Your task to perform on an android device: Search for flights from Tokyo to Seoul Image 0: 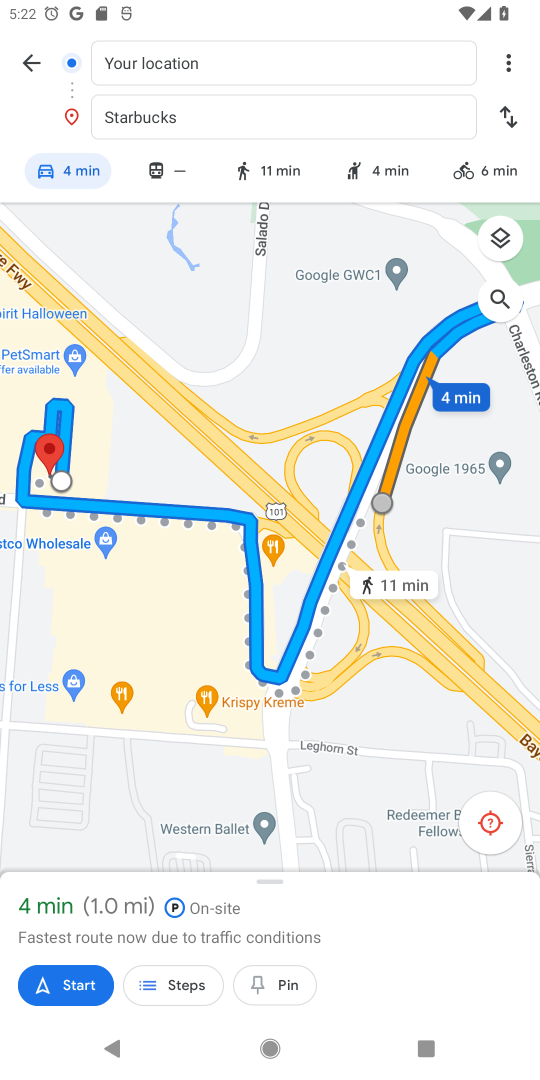
Step 0: press home button
Your task to perform on an android device: Search for flights from Tokyo to Seoul Image 1: 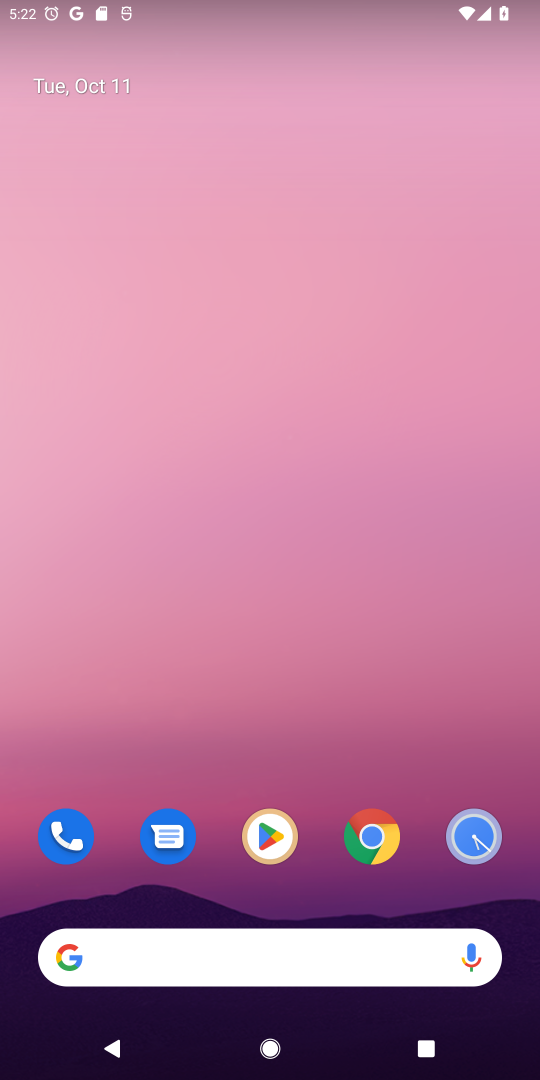
Step 1: click (333, 977)
Your task to perform on an android device: Search for flights from Tokyo to Seoul Image 2: 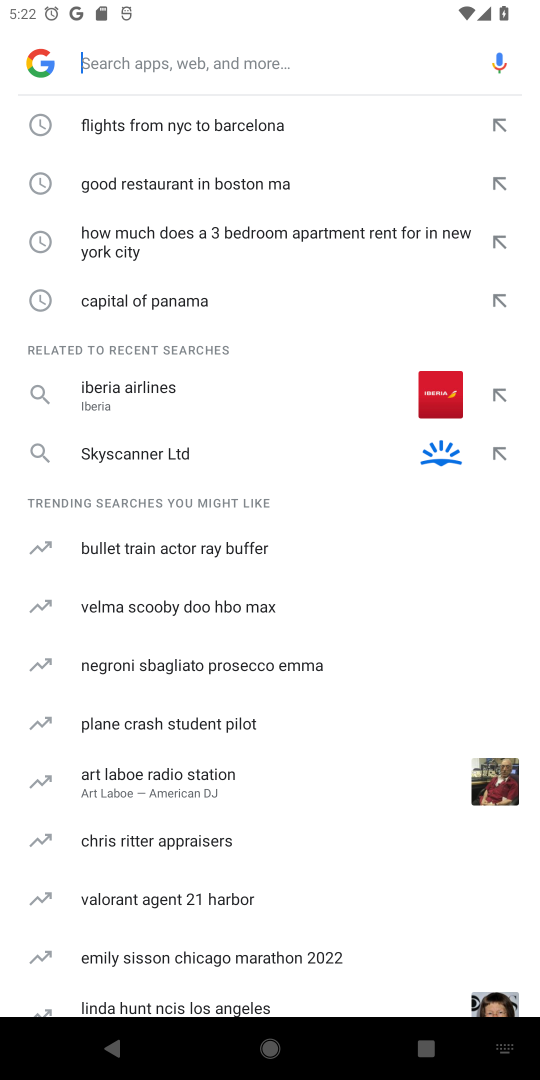
Step 2: type "flights from Tokyo to Seoul"
Your task to perform on an android device: Search for flights from Tokyo to Seoul Image 3: 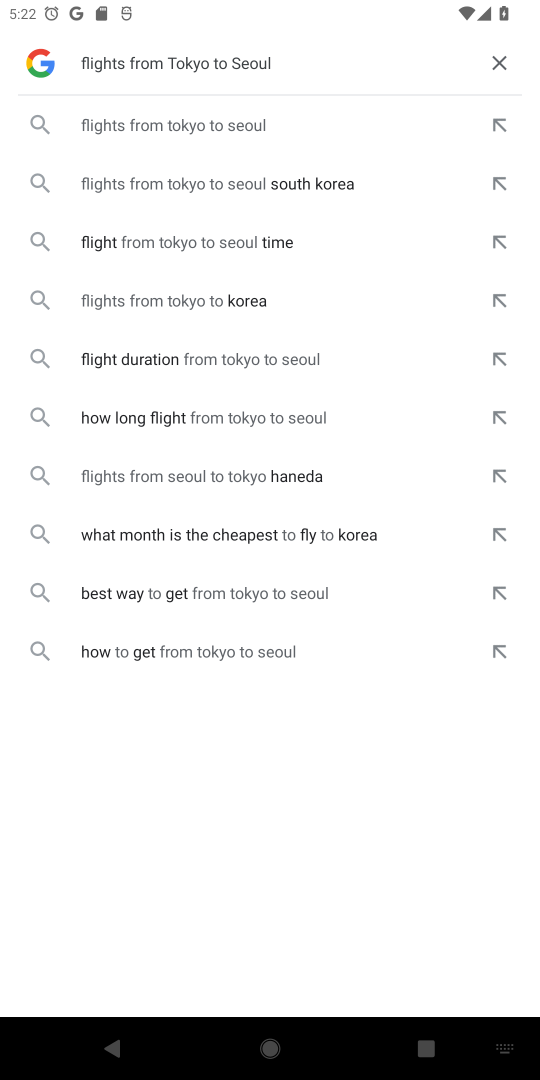
Step 3: click (317, 121)
Your task to perform on an android device: Search for flights from Tokyo to Seoul Image 4: 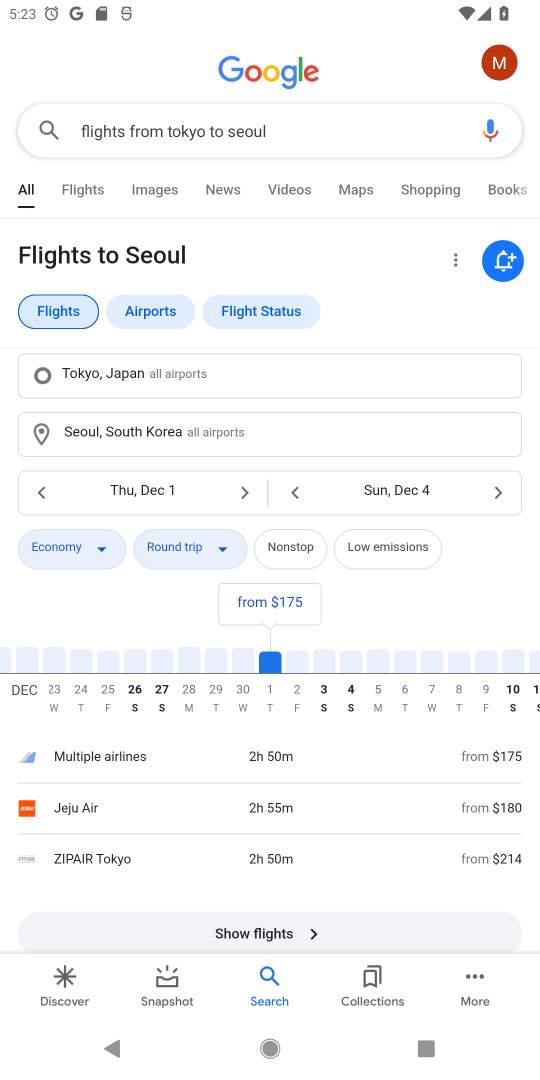
Step 4: task complete